Your task to perform on an android device: change text size in settings app Image 0: 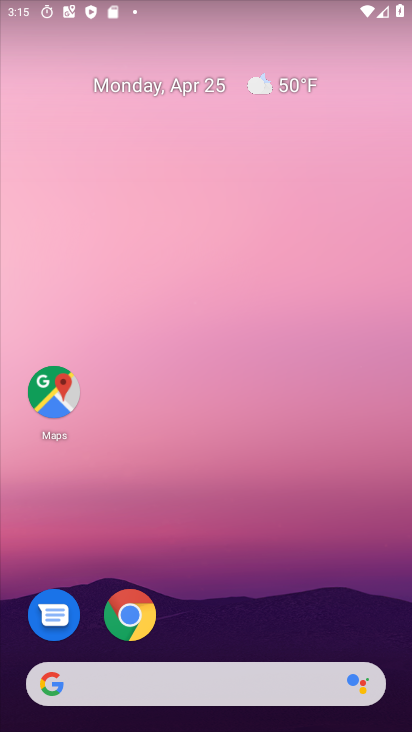
Step 0: drag from (210, 727) to (229, 128)
Your task to perform on an android device: change text size in settings app Image 1: 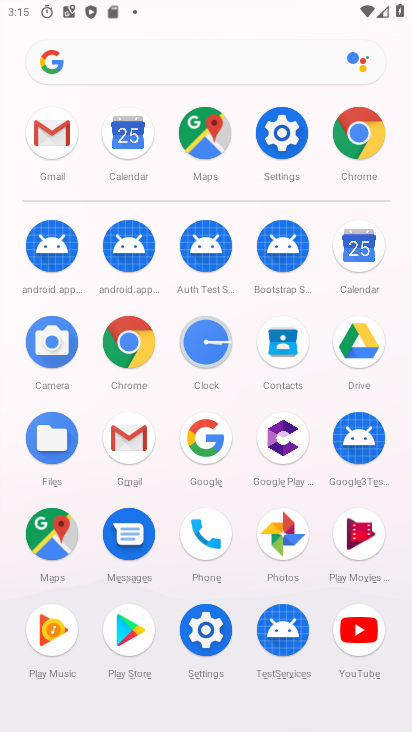
Step 1: click (280, 134)
Your task to perform on an android device: change text size in settings app Image 2: 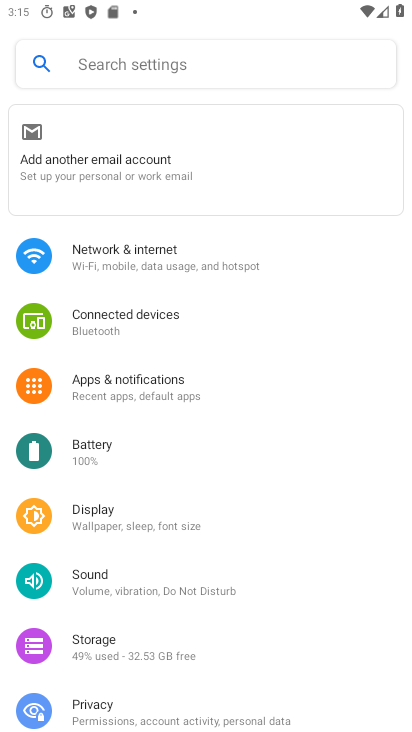
Step 2: click (136, 522)
Your task to perform on an android device: change text size in settings app Image 3: 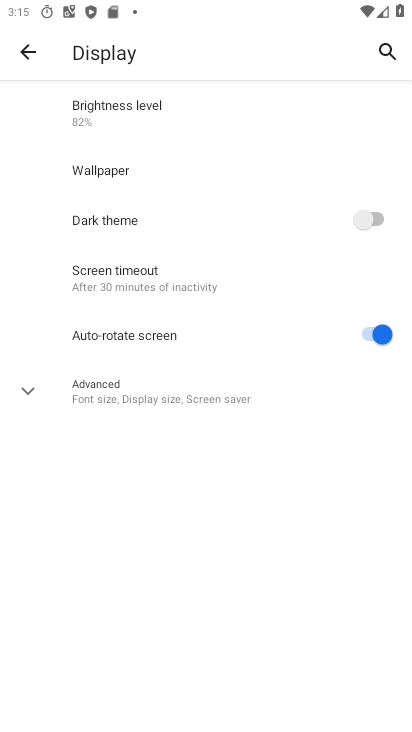
Step 3: click (170, 398)
Your task to perform on an android device: change text size in settings app Image 4: 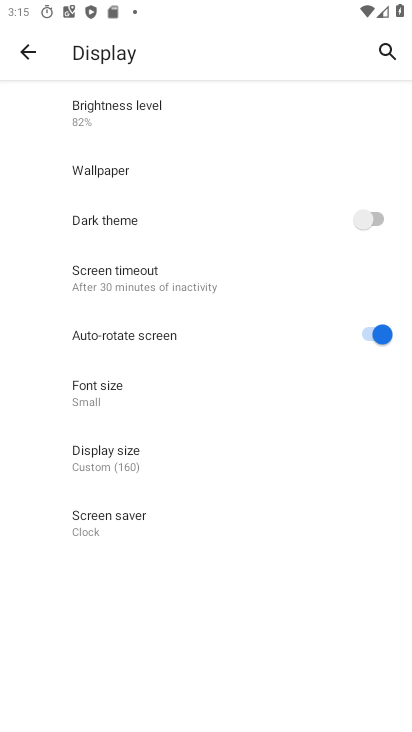
Step 4: click (98, 388)
Your task to perform on an android device: change text size in settings app Image 5: 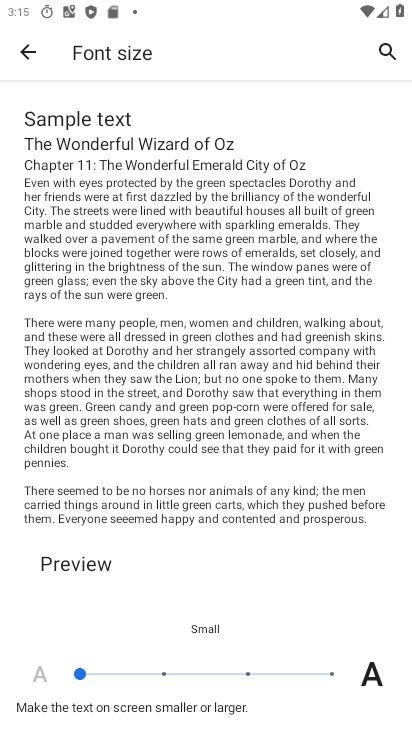
Step 5: click (164, 673)
Your task to perform on an android device: change text size in settings app Image 6: 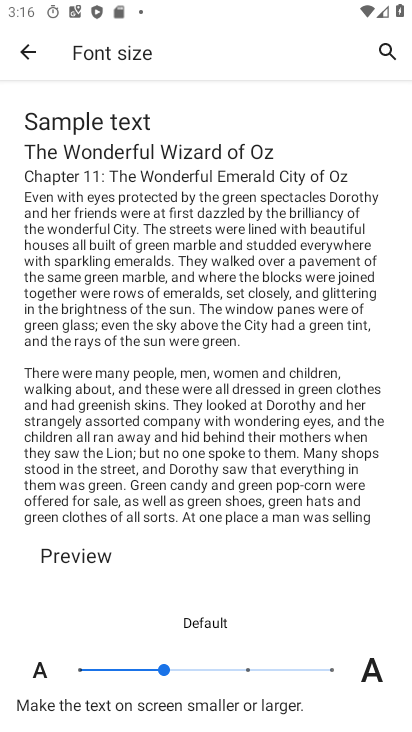
Step 6: task complete